Your task to perform on an android device: change notifications settings Image 0: 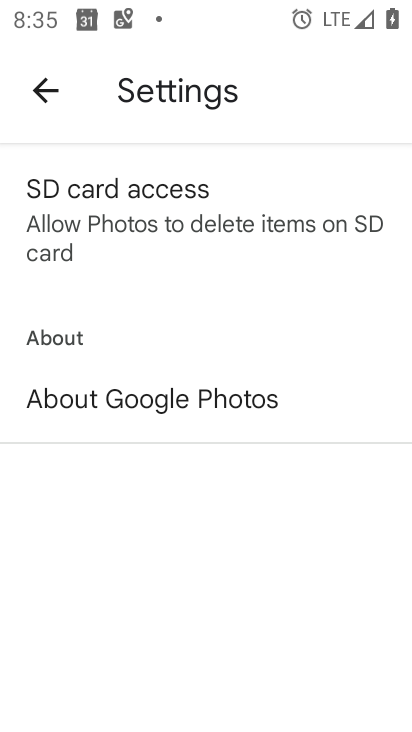
Step 0: drag from (209, 598) to (226, 192)
Your task to perform on an android device: change notifications settings Image 1: 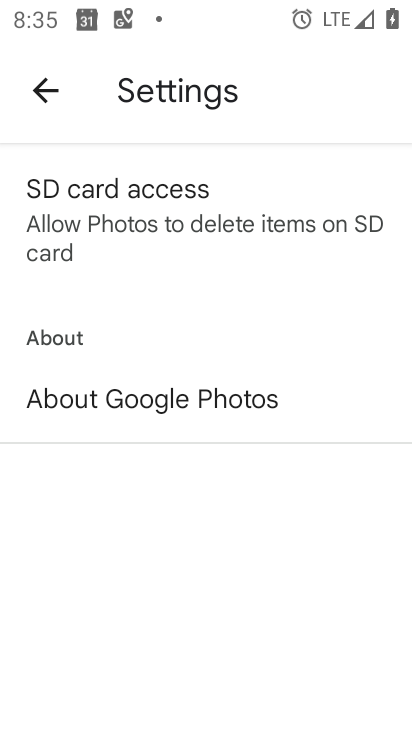
Step 1: press home button
Your task to perform on an android device: change notifications settings Image 2: 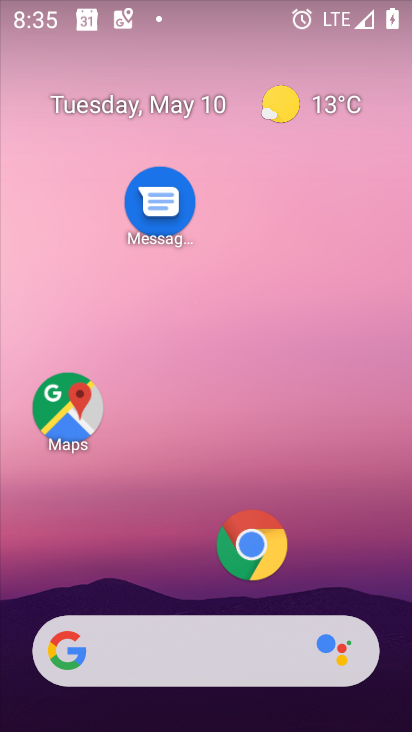
Step 2: drag from (199, 581) to (217, 72)
Your task to perform on an android device: change notifications settings Image 3: 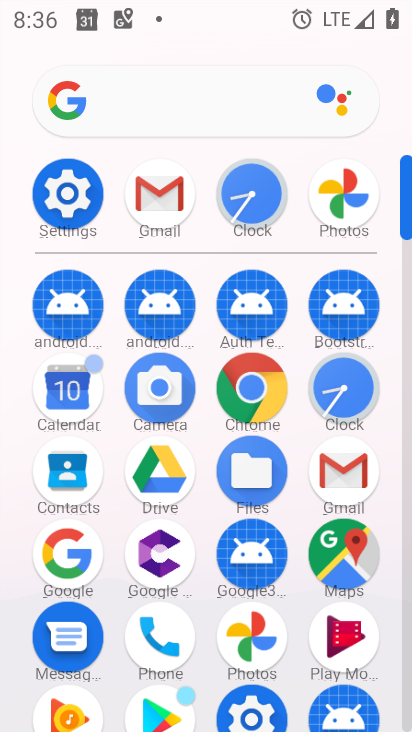
Step 3: click (67, 185)
Your task to perform on an android device: change notifications settings Image 4: 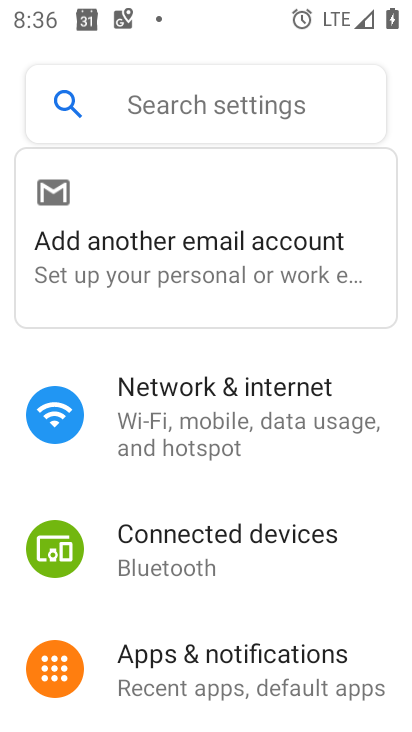
Step 4: click (203, 666)
Your task to perform on an android device: change notifications settings Image 5: 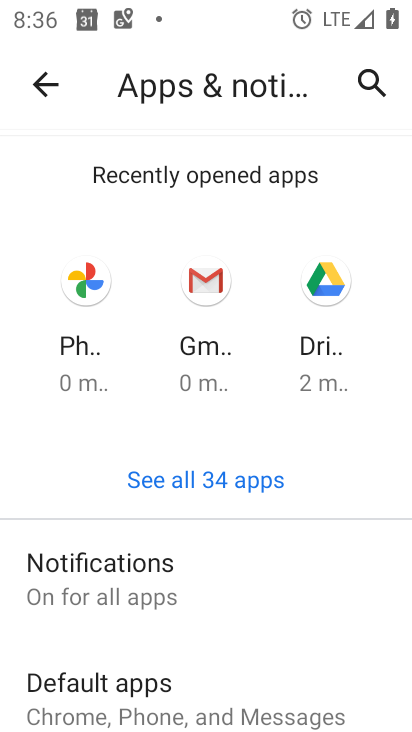
Step 5: click (186, 578)
Your task to perform on an android device: change notifications settings Image 6: 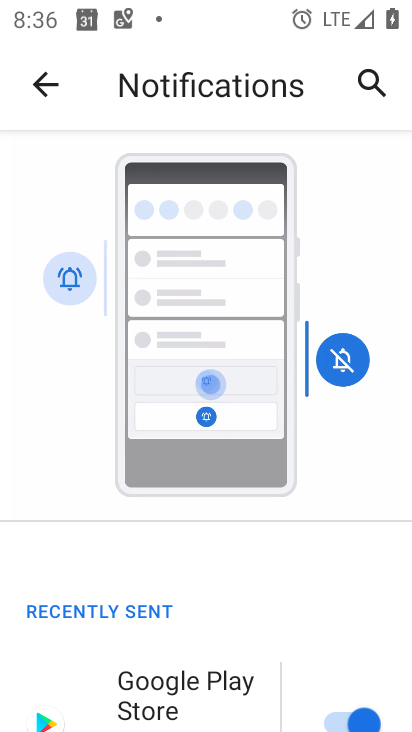
Step 6: drag from (209, 645) to (262, 206)
Your task to perform on an android device: change notifications settings Image 7: 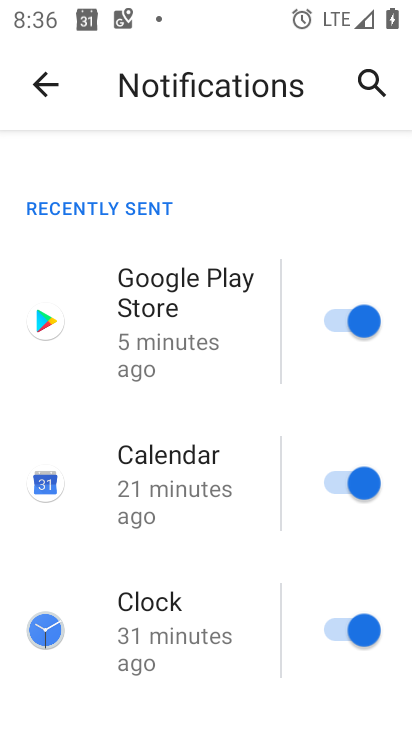
Step 7: drag from (218, 670) to (232, 195)
Your task to perform on an android device: change notifications settings Image 8: 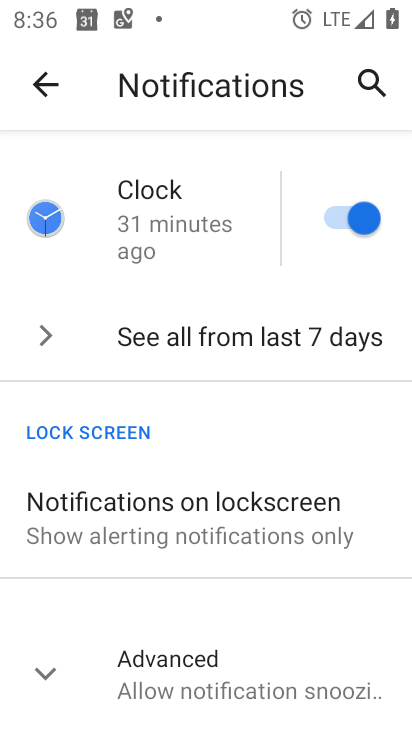
Step 8: click (43, 665)
Your task to perform on an android device: change notifications settings Image 9: 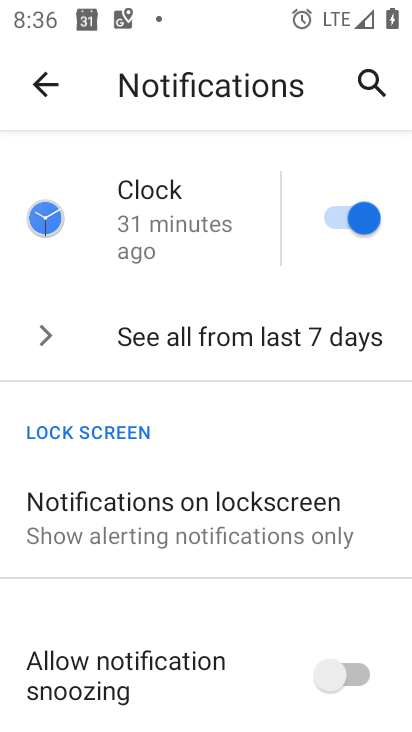
Step 9: drag from (237, 681) to (243, 357)
Your task to perform on an android device: change notifications settings Image 10: 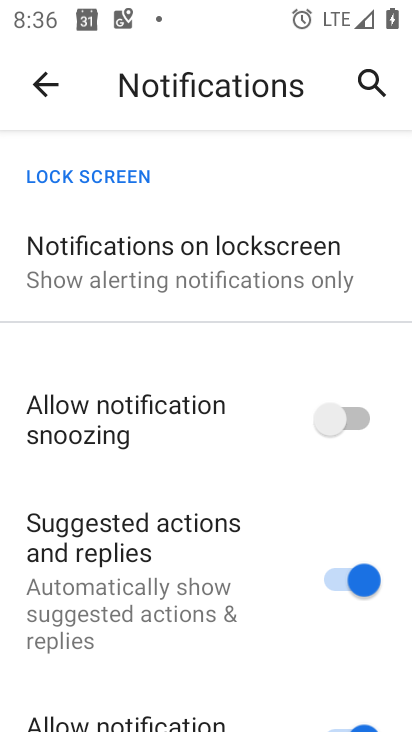
Step 10: drag from (195, 302) to (215, 716)
Your task to perform on an android device: change notifications settings Image 11: 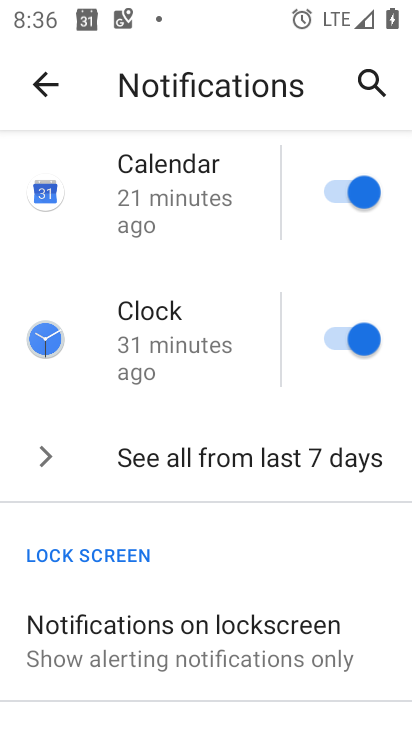
Step 11: click (339, 190)
Your task to perform on an android device: change notifications settings Image 12: 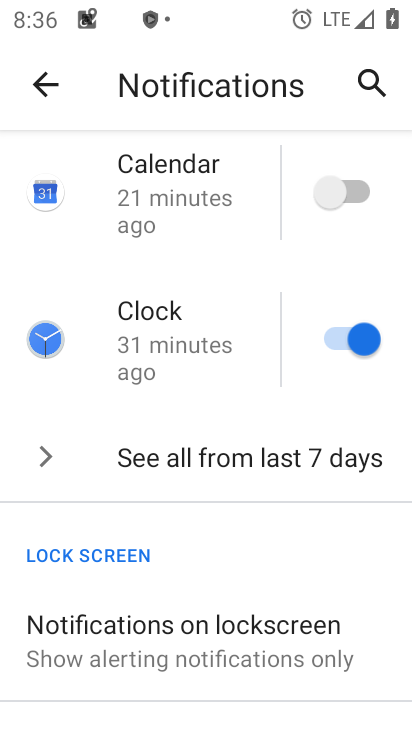
Step 12: click (347, 333)
Your task to perform on an android device: change notifications settings Image 13: 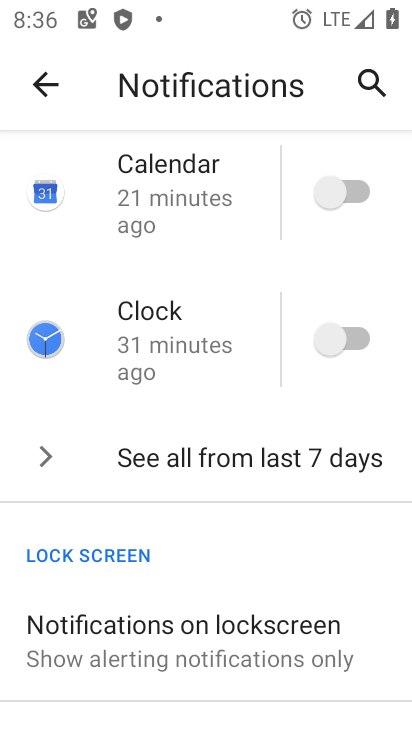
Step 13: drag from (231, 238) to (227, 588)
Your task to perform on an android device: change notifications settings Image 14: 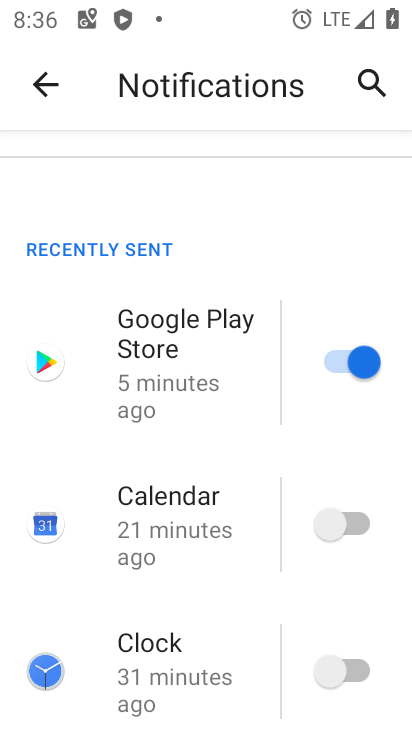
Step 14: click (329, 360)
Your task to perform on an android device: change notifications settings Image 15: 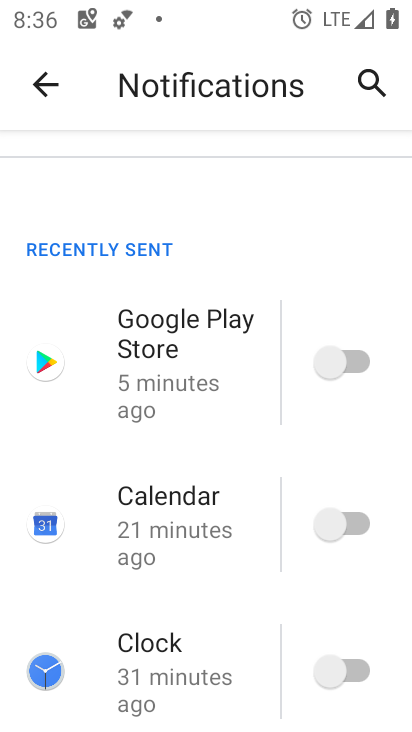
Step 15: drag from (247, 594) to (268, 153)
Your task to perform on an android device: change notifications settings Image 16: 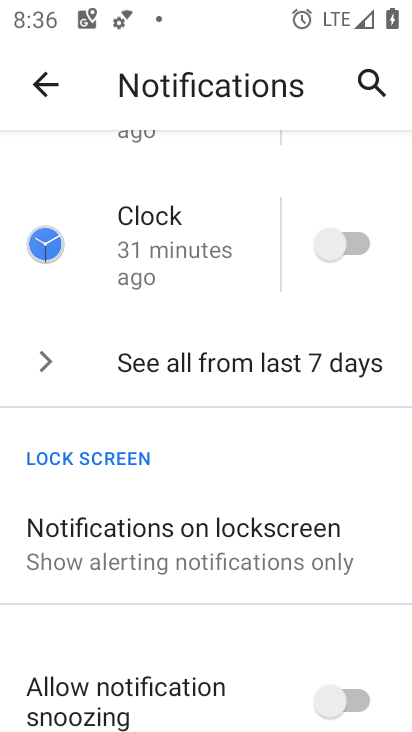
Step 16: click (210, 547)
Your task to perform on an android device: change notifications settings Image 17: 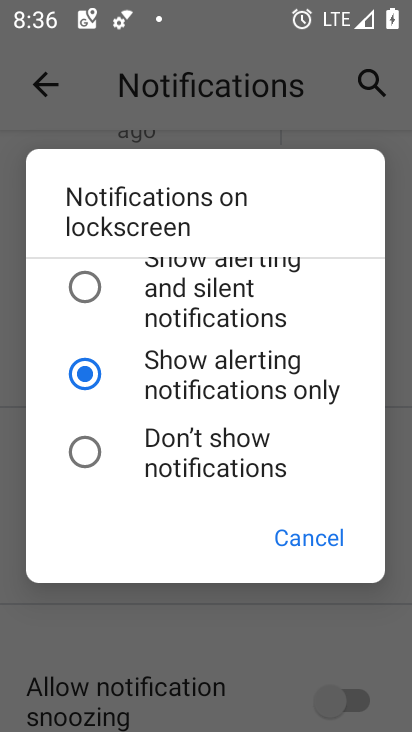
Step 17: click (86, 280)
Your task to perform on an android device: change notifications settings Image 18: 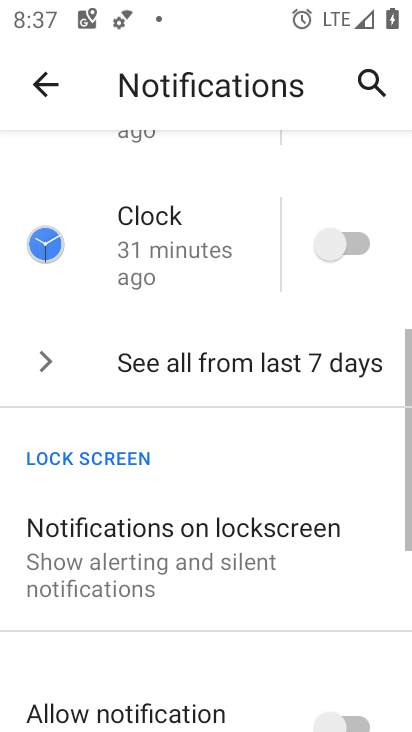
Step 18: task complete